Your task to perform on an android device: open app "Yahoo Mail" (install if not already installed) Image 0: 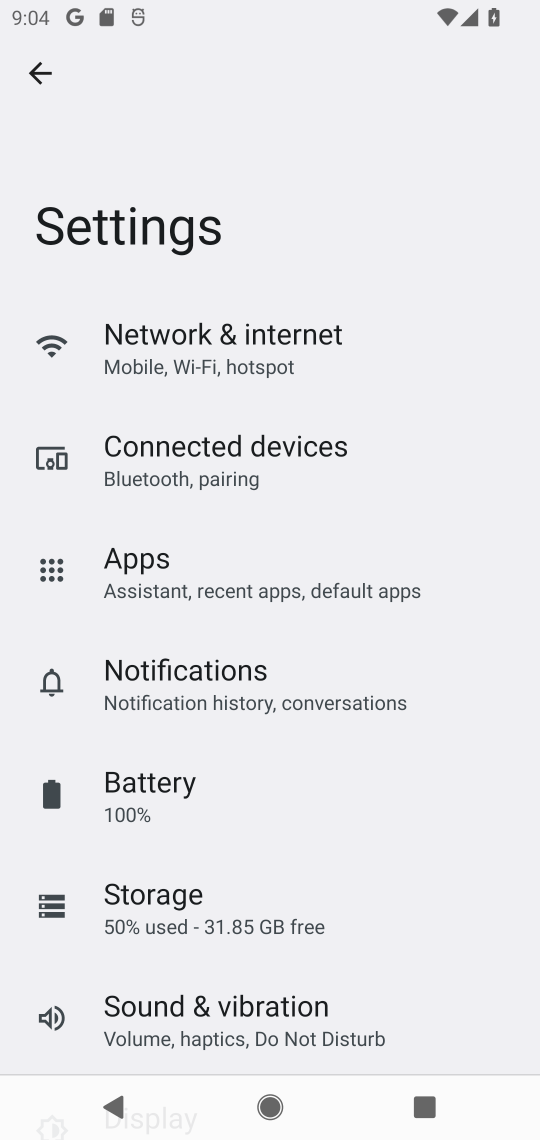
Step 0: press home button
Your task to perform on an android device: open app "Yahoo Mail" (install if not already installed) Image 1: 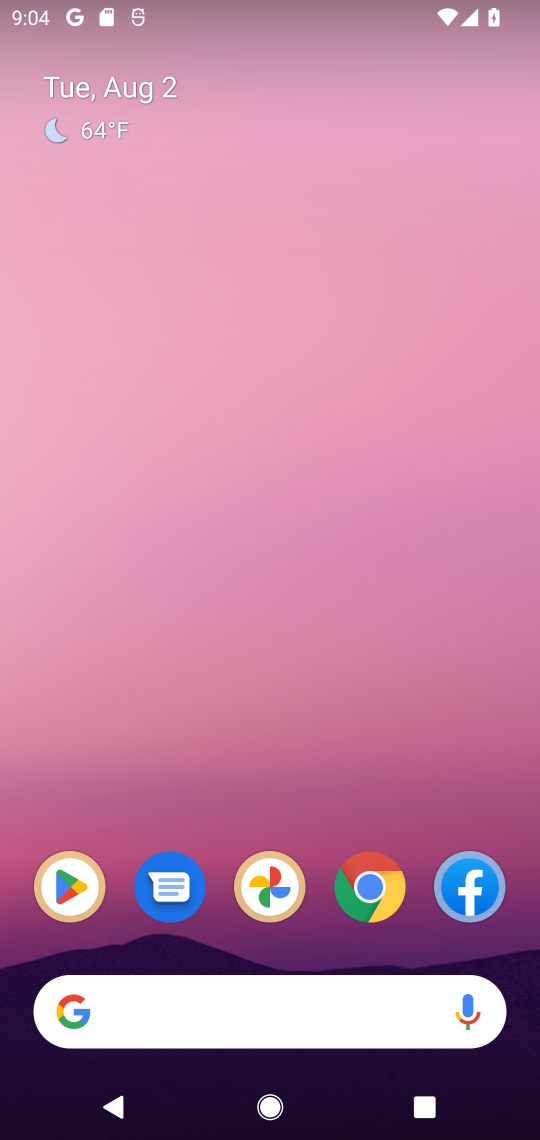
Step 1: click (60, 878)
Your task to perform on an android device: open app "Yahoo Mail" (install if not already installed) Image 2: 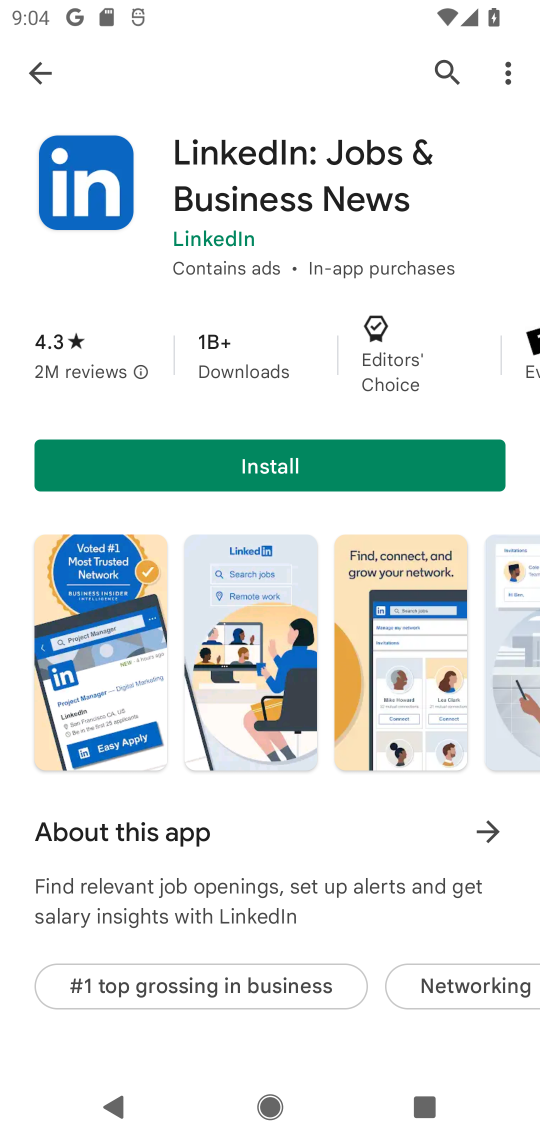
Step 2: click (440, 74)
Your task to perform on an android device: open app "Yahoo Mail" (install if not already installed) Image 3: 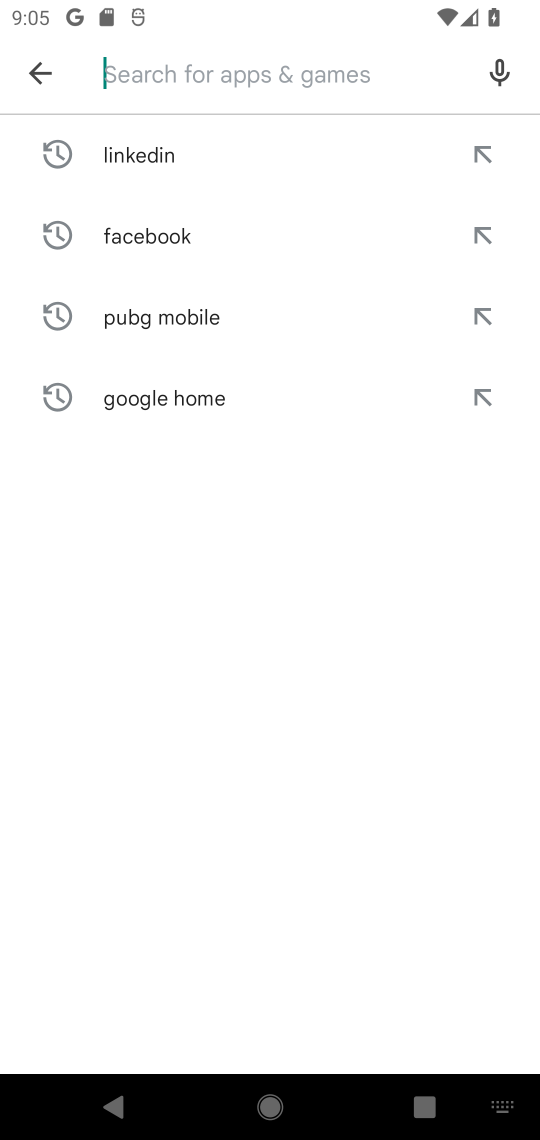
Step 3: type "yahoo mail"
Your task to perform on an android device: open app "Yahoo Mail" (install if not already installed) Image 4: 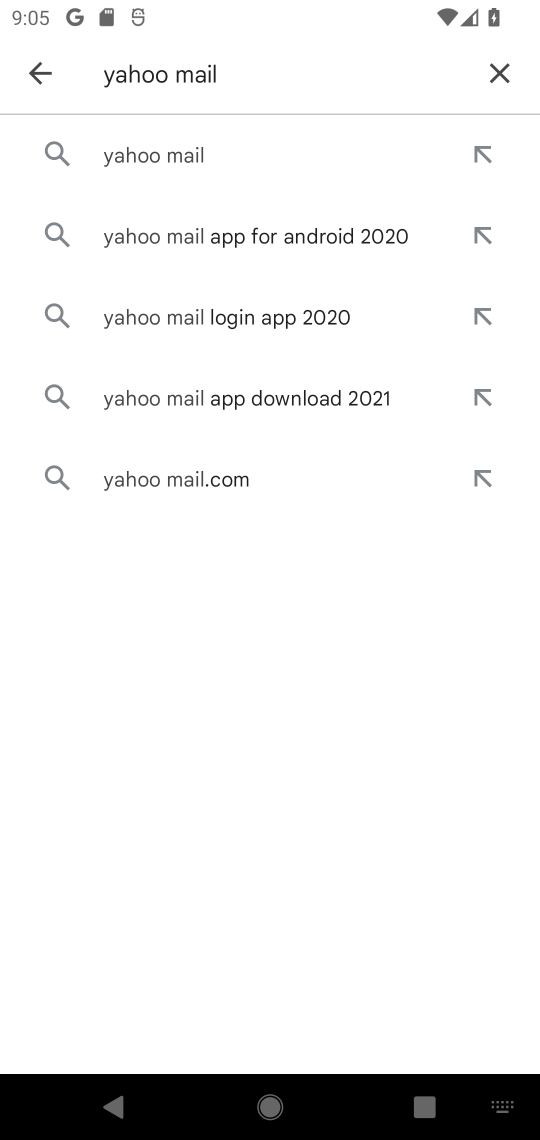
Step 4: click (284, 129)
Your task to perform on an android device: open app "Yahoo Mail" (install if not already installed) Image 5: 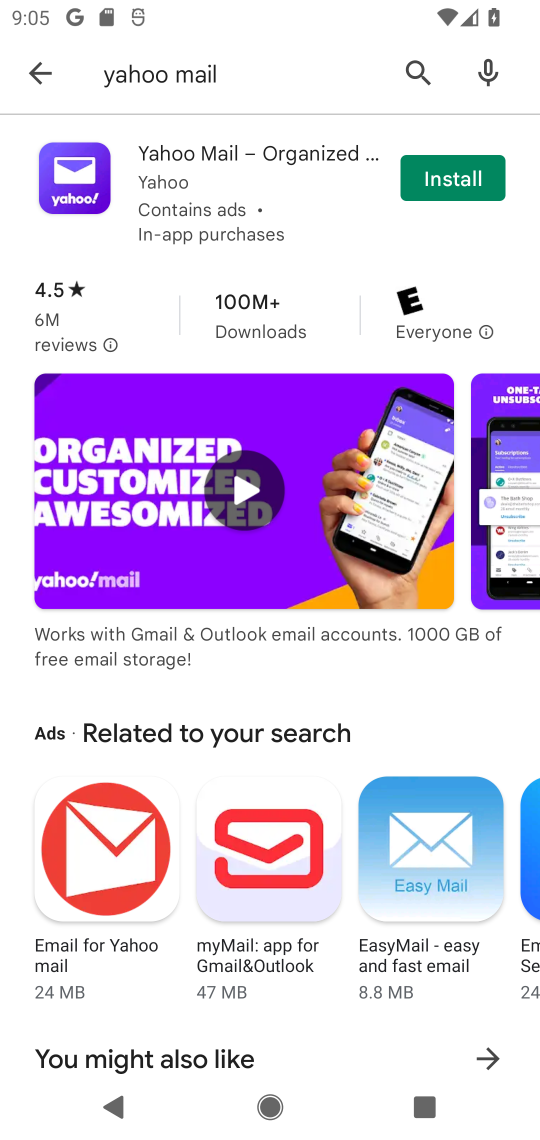
Step 5: click (232, 151)
Your task to perform on an android device: open app "Yahoo Mail" (install if not already installed) Image 6: 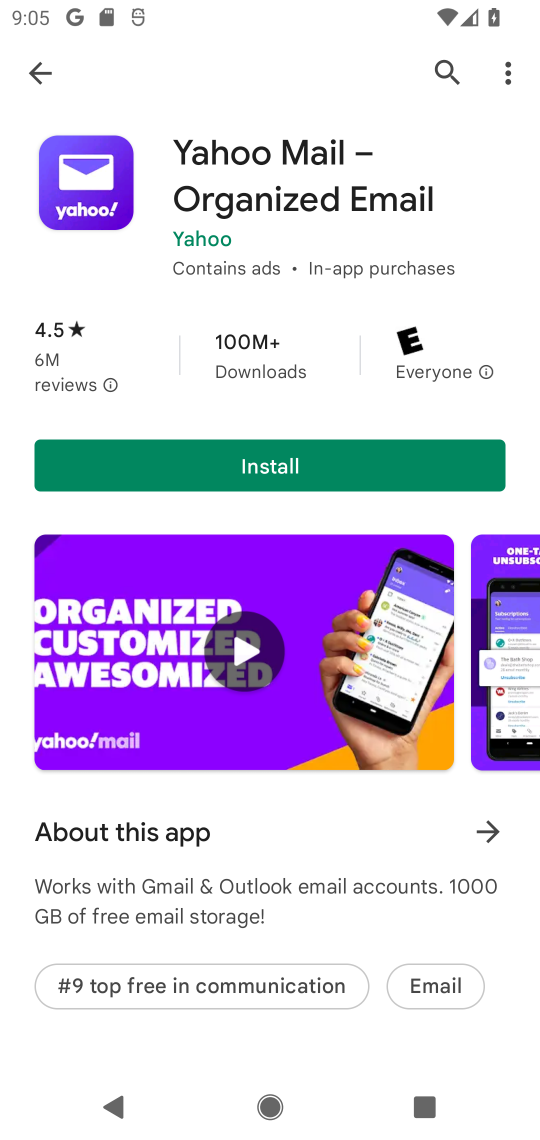
Step 6: click (314, 470)
Your task to perform on an android device: open app "Yahoo Mail" (install if not already installed) Image 7: 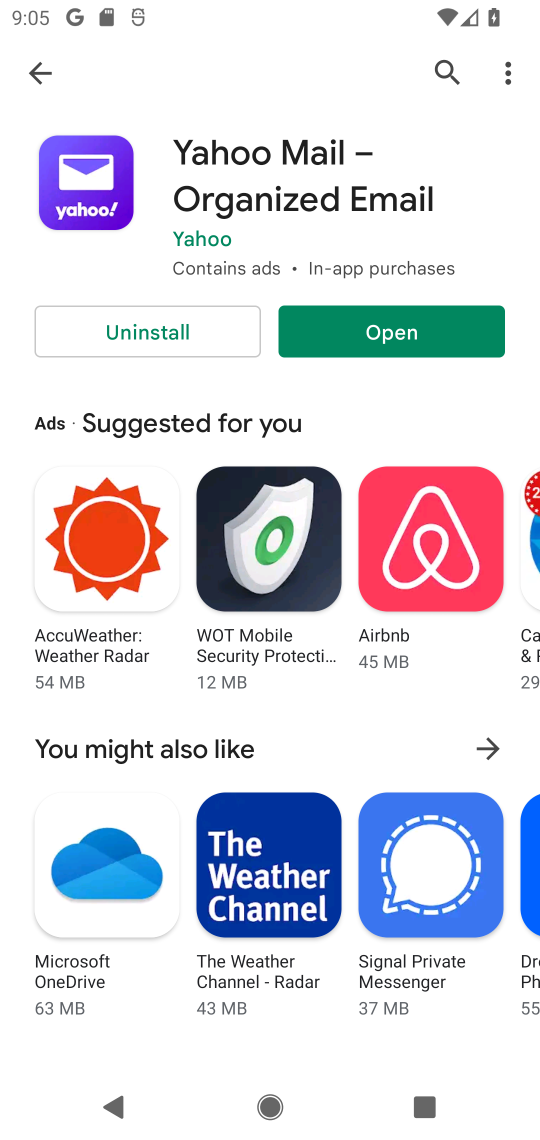
Step 7: click (451, 313)
Your task to perform on an android device: open app "Yahoo Mail" (install if not already installed) Image 8: 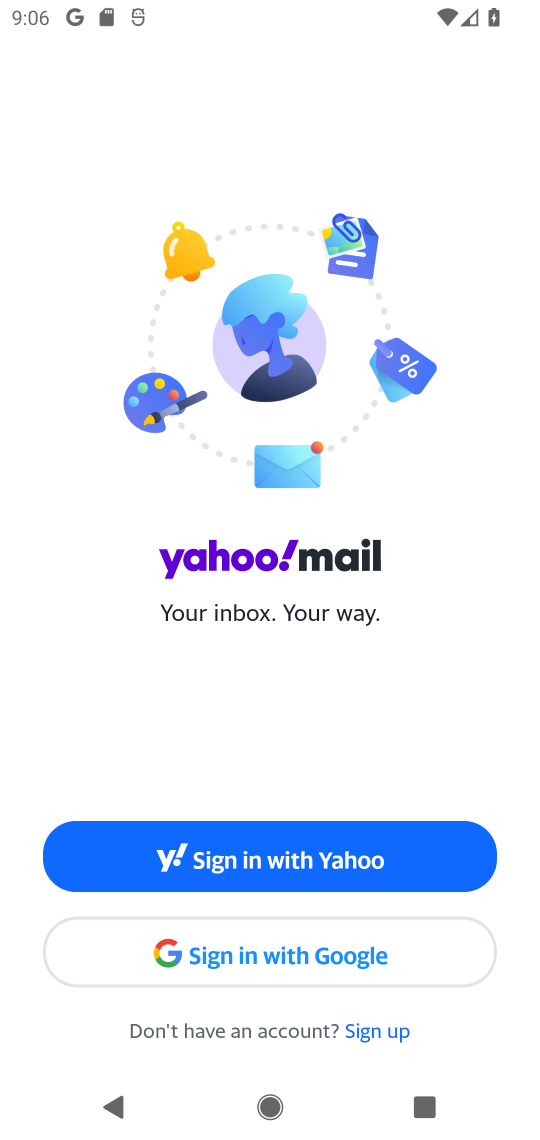
Step 8: task complete